Your task to perform on an android device: delete the emails in spam in the gmail app Image 0: 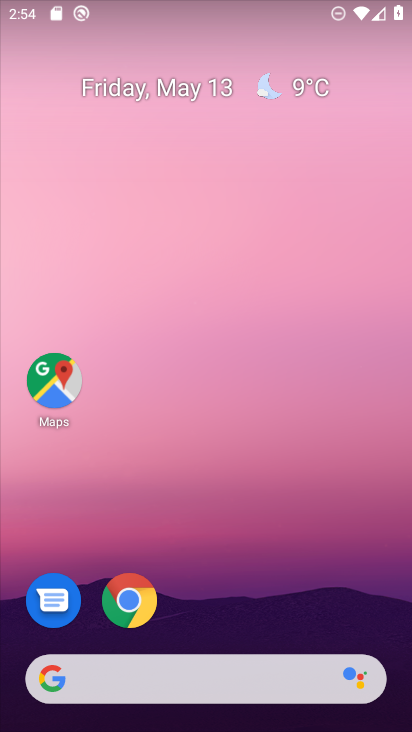
Step 0: drag from (149, 629) to (273, 181)
Your task to perform on an android device: delete the emails in spam in the gmail app Image 1: 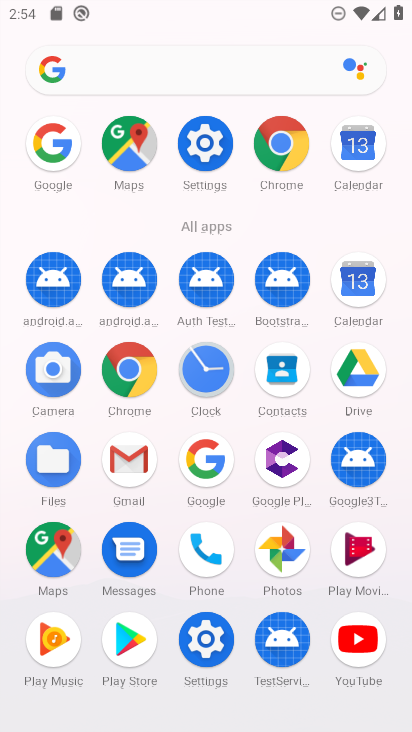
Step 1: click (133, 472)
Your task to perform on an android device: delete the emails in spam in the gmail app Image 2: 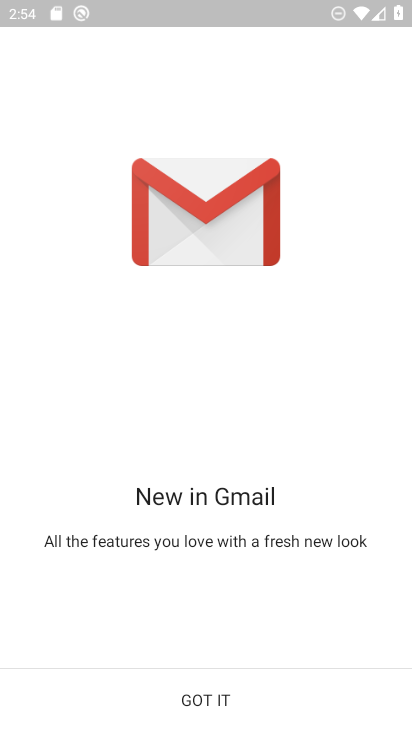
Step 2: click (187, 701)
Your task to perform on an android device: delete the emails in spam in the gmail app Image 3: 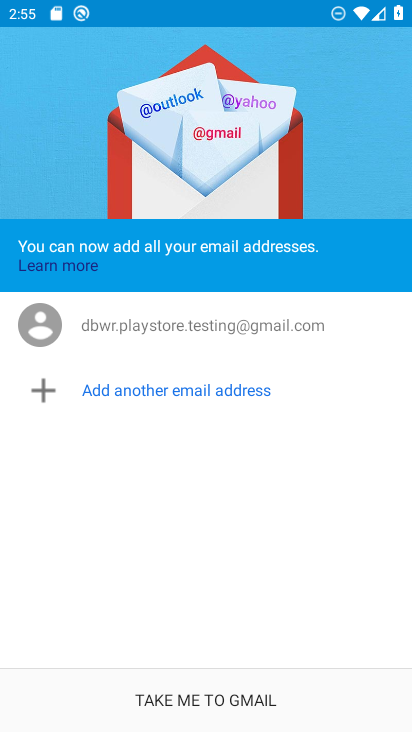
Step 3: click (262, 702)
Your task to perform on an android device: delete the emails in spam in the gmail app Image 4: 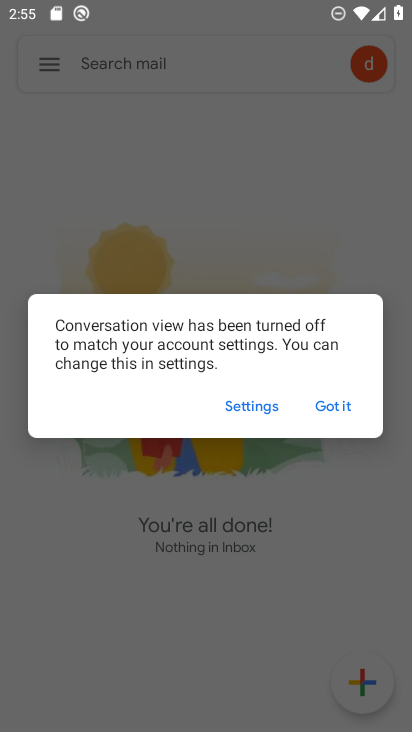
Step 4: click (39, 69)
Your task to perform on an android device: delete the emails in spam in the gmail app Image 5: 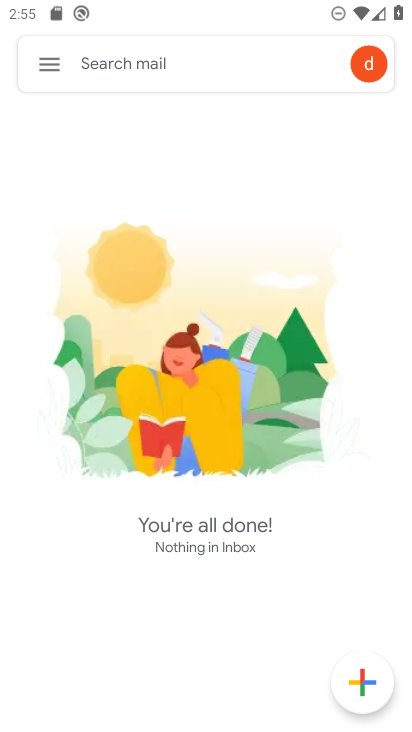
Step 5: click (48, 60)
Your task to perform on an android device: delete the emails in spam in the gmail app Image 6: 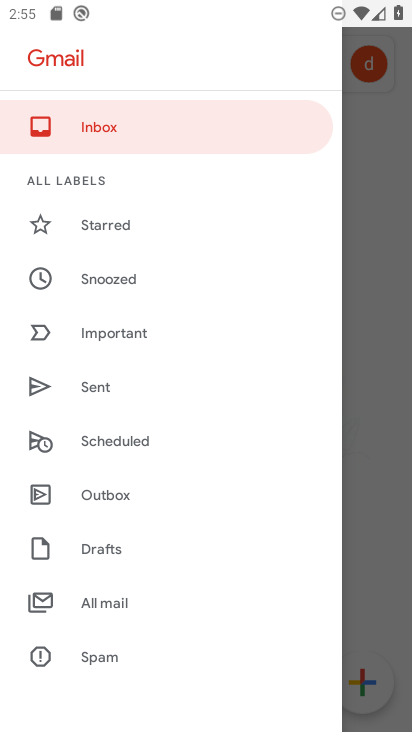
Step 6: drag from (99, 613) to (231, 124)
Your task to perform on an android device: delete the emails in spam in the gmail app Image 7: 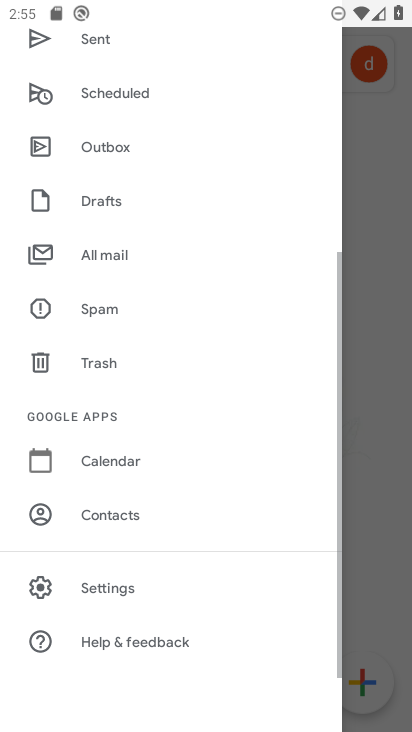
Step 7: click (98, 313)
Your task to perform on an android device: delete the emails in spam in the gmail app Image 8: 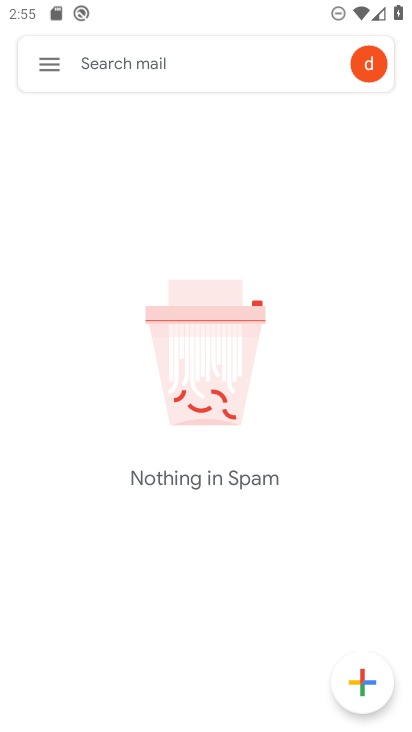
Step 8: task complete